Your task to perform on an android device: turn off javascript in the chrome app Image 0: 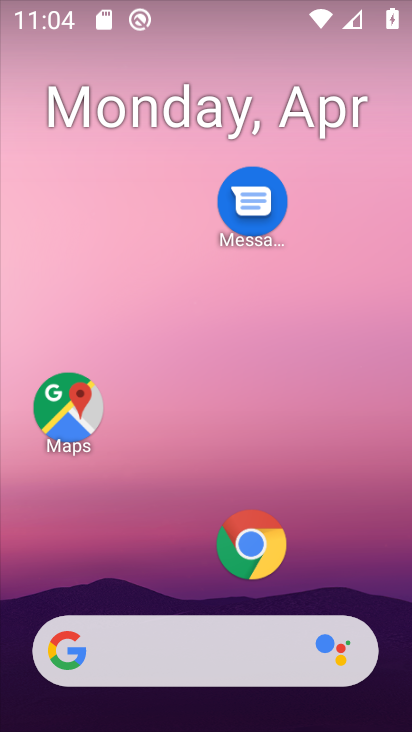
Step 0: click (249, 544)
Your task to perform on an android device: turn off javascript in the chrome app Image 1: 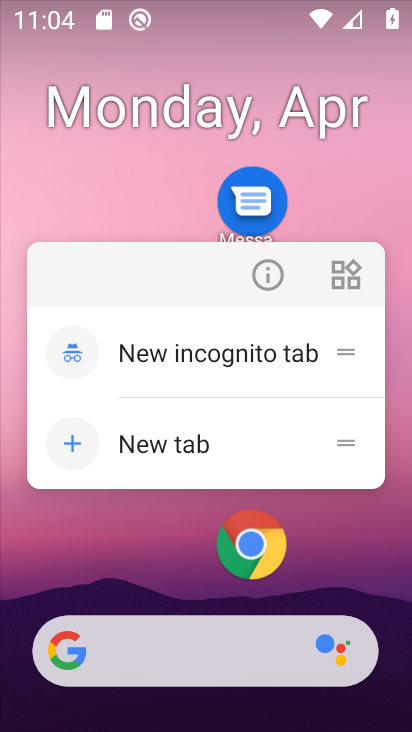
Step 1: click (315, 555)
Your task to perform on an android device: turn off javascript in the chrome app Image 2: 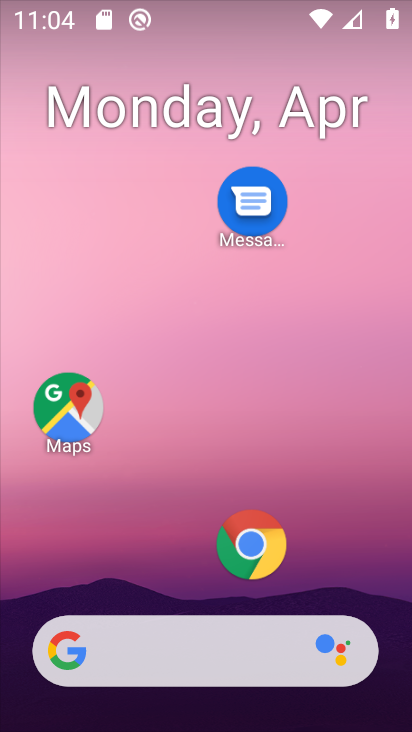
Step 2: drag from (200, 559) to (235, 83)
Your task to perform on an android device: turn off javascript in the chrome app Image 3: 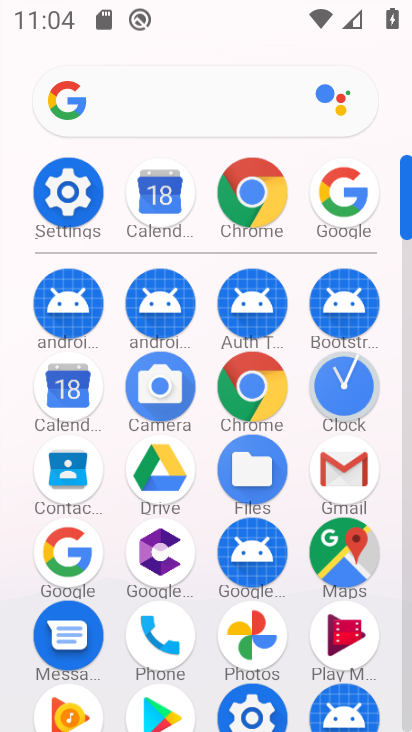
Step 3: click (256, 189)
Your task to perform on an android device: turn off javascript in the chrome app Image 4: 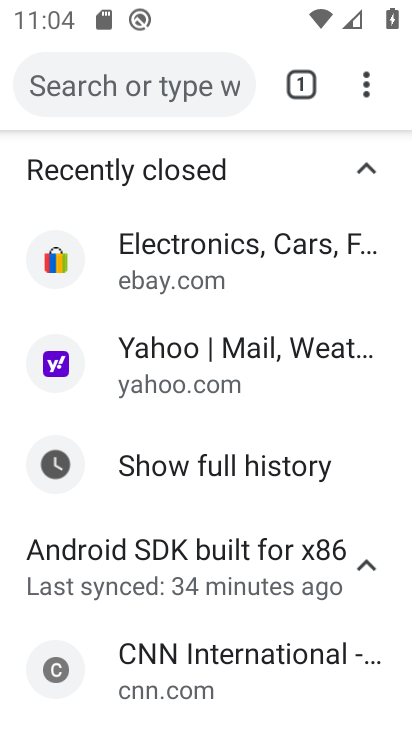
Step 4: click (368, 77)
Your task to perform on an android device: turn off javascript in the chrome app Image 5: 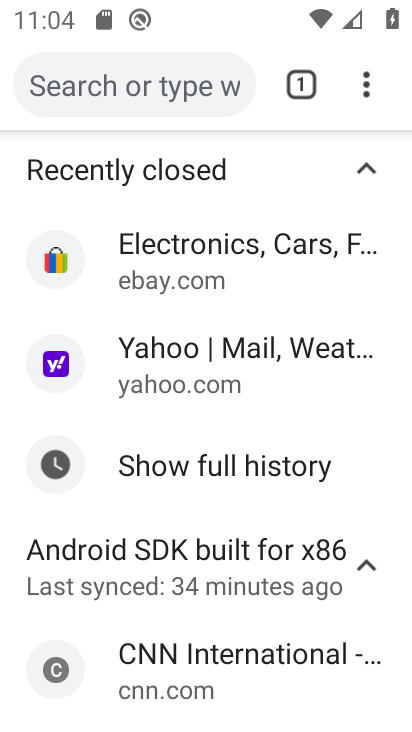
Step 5: click (361, 78)
Your task to perform on an android device: turn off javascript in the chrome app Image 6: 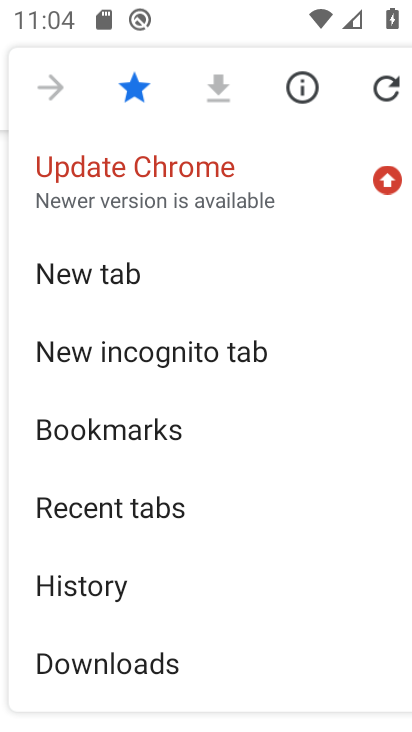
Step 6: drag from (190, 603) to (213, 51)
Your task to perform on an android device: turn off javascript in the chrome app Image 7: 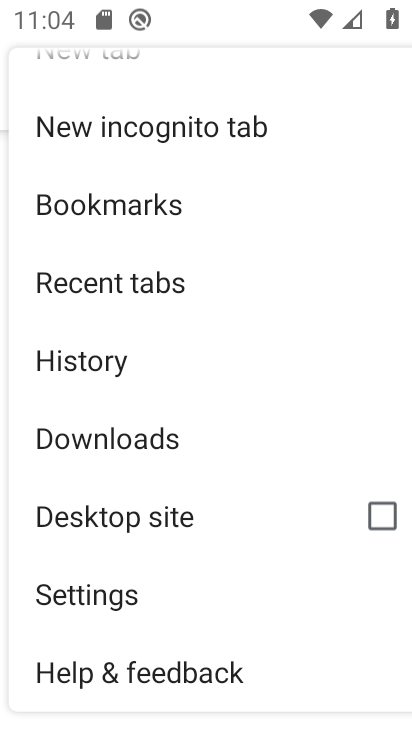
Step 7: click (112, 607)
Your task to perform on an android device: turn off javascript in the chrome app Image 8: 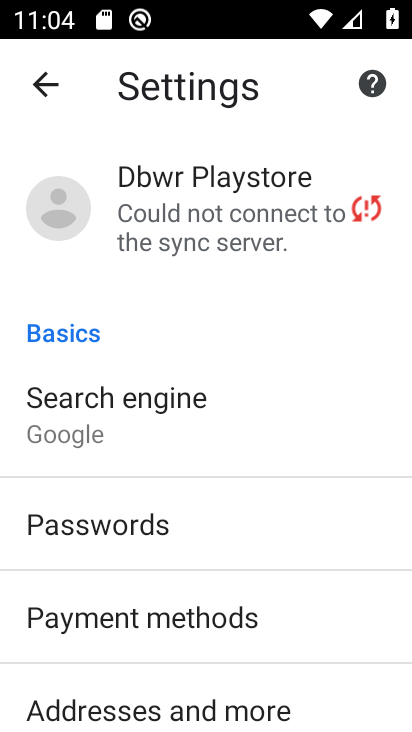
Step 8: drag from (181, 655) to (268, 154)
Your task to perform on an android device: turn off javascript in the chrome app Image 9: 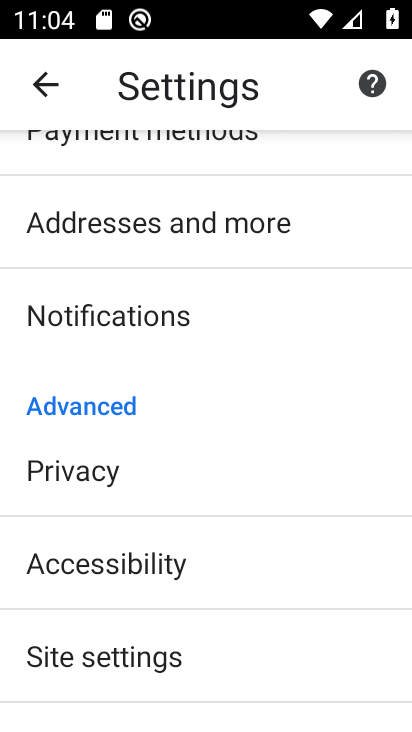
Step 9: drag from (191, 655) to (222, 216)
Your task to perform on an android device: turn off javascript in the chrome app Image 10: 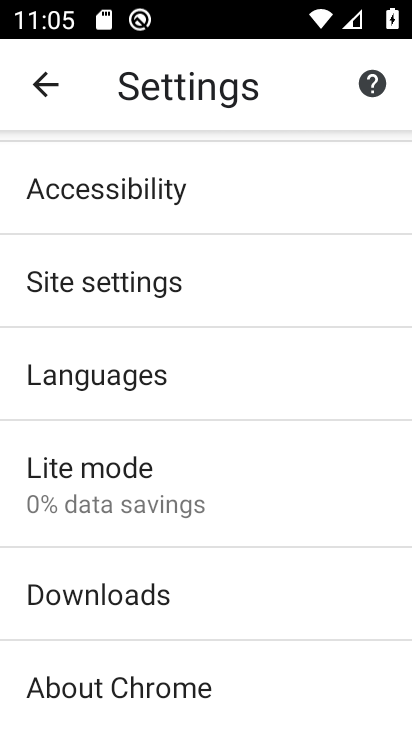
Step 10: click (197, 283)
Your task to perform on an android device: turn off javascript in the chrome app Image 11: 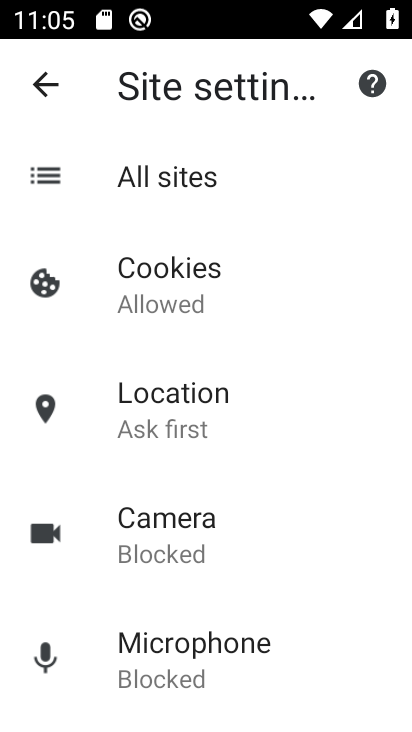
Step 11: drag from (197, 623) to (209, 215)
Your task to perform on an android device: turn off javascript in the chrome app Image 12: 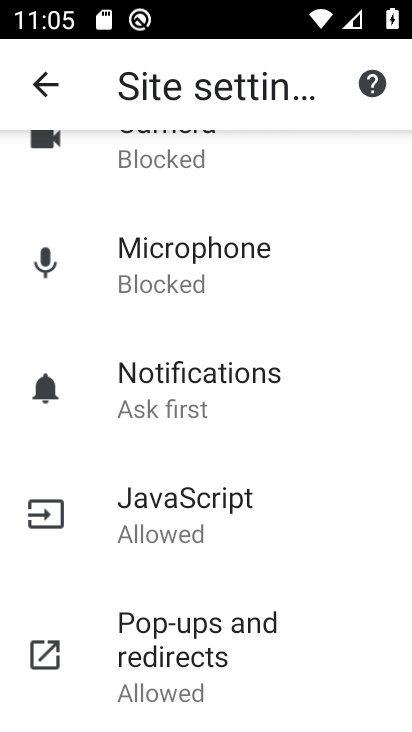
Step 12: click (141, 522)
Your task to perform on an android device: turn off javascript in the chrome app Image 13: 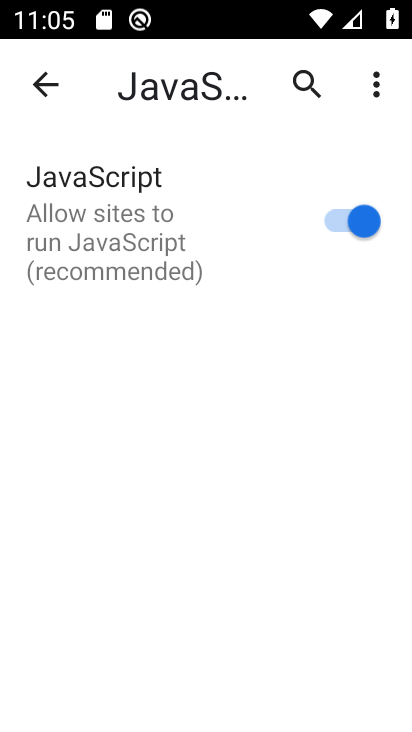
Step 13: click (326, 211)
Your task to perform on an android device: turn off javascript in the chrome app Image 14: 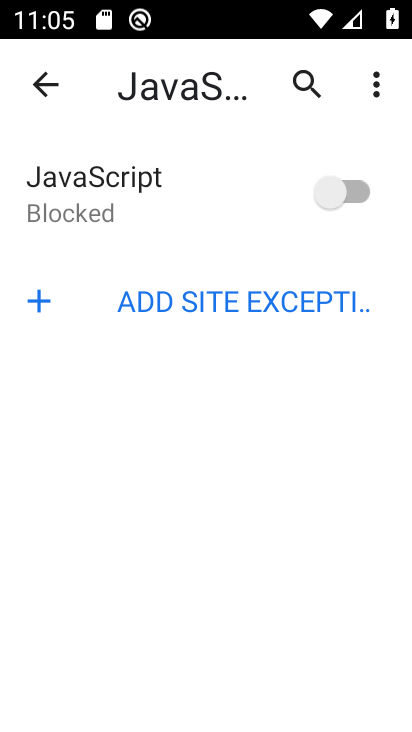
Step 14: task complete